Your task to perform on an android device: See recent photos Image 0: 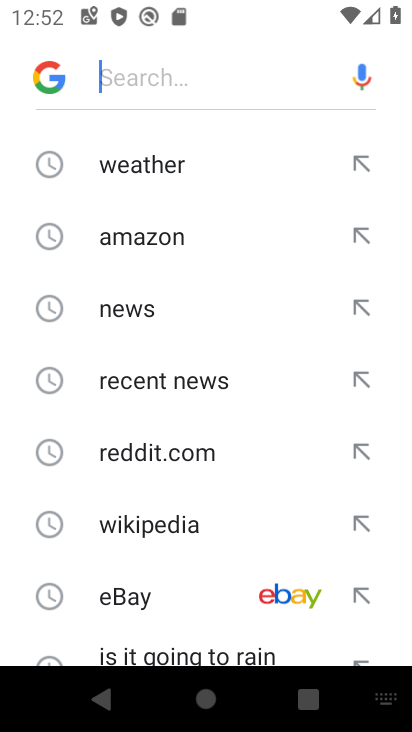
Step 0: press back button
Your task to perform on an android device: See recent photos Image 1: 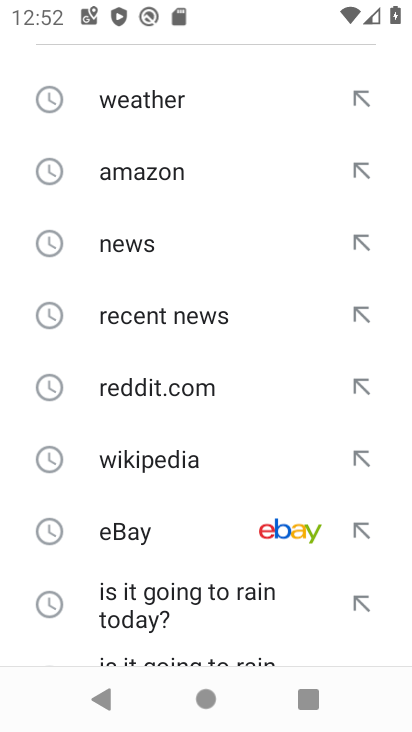
Step 1: press back button
Your task to perform on an android device: See recent photos Image 2: 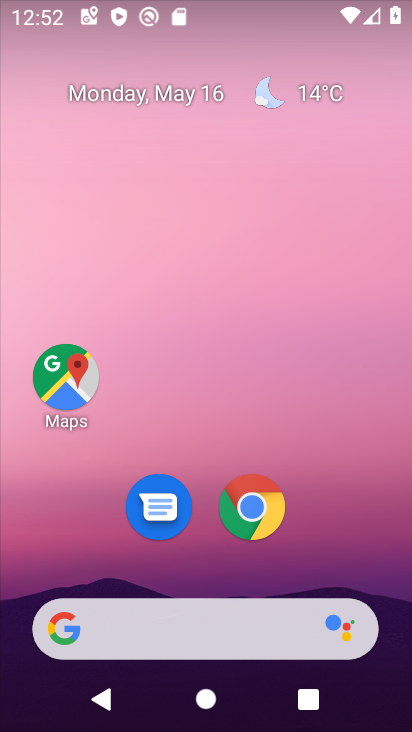
Step 2: drag from (12, 632) to (242, 171)
Your task to perform on an android device: See recent photos Image 3: 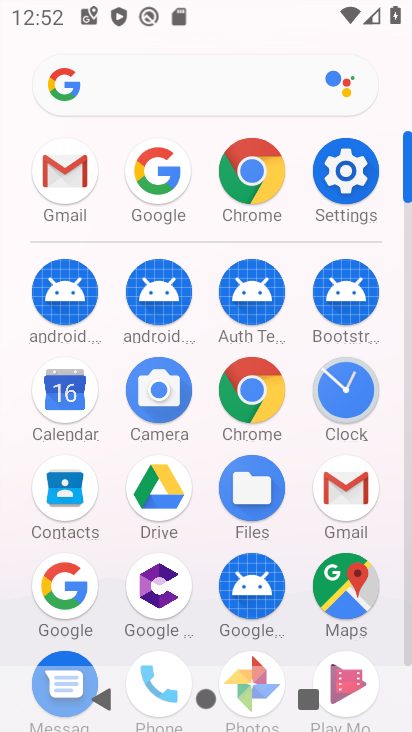
Step 3: click (241, 659)
Your task to perform on an android device: See recent photos Image 4: 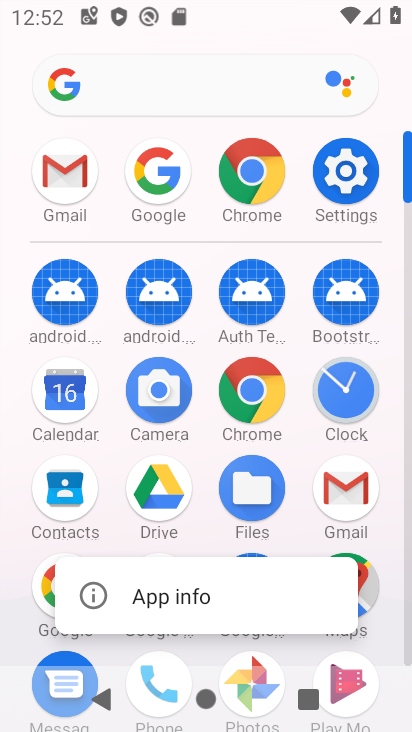
Step 4: click (239, 657)
Your task to perform on an android device: See recent photos Image 5: 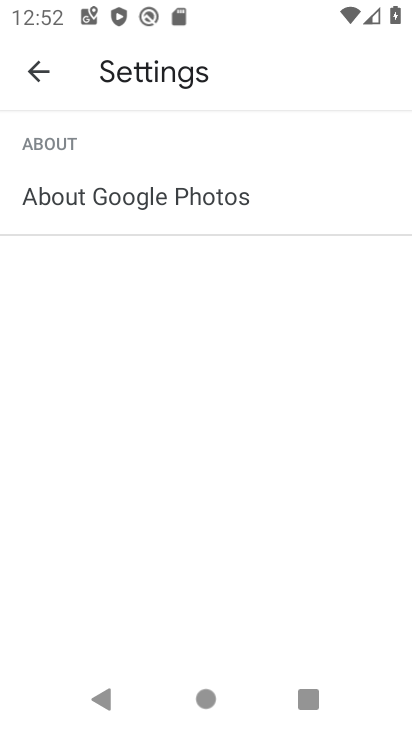
Step 5: click (124, 706)
Your task to perform on an android device: See recent photos Image 6: 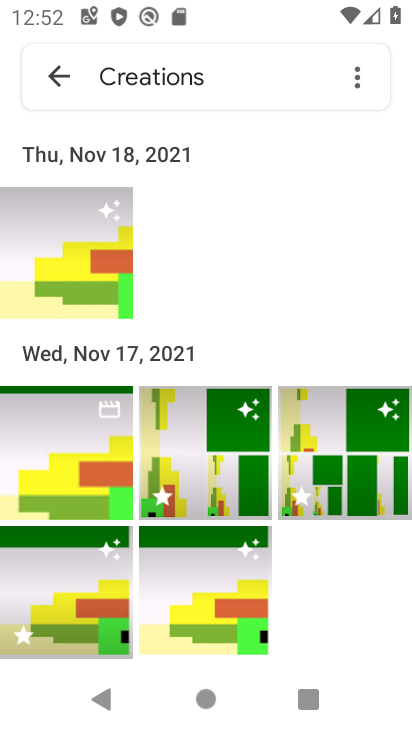
Step 6: task complete